Your task to perform on an android device: toggle data saver in the chrome app Image 0: 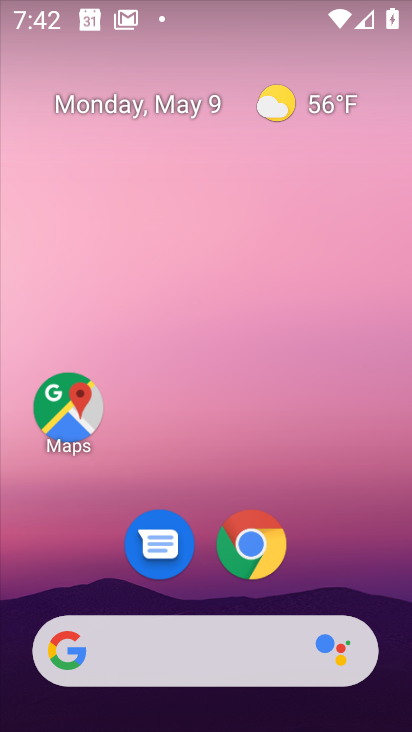
Step 0: click (251, 546)
Your task to perform on an android device: toggle data saver in the chrome app Image 1: 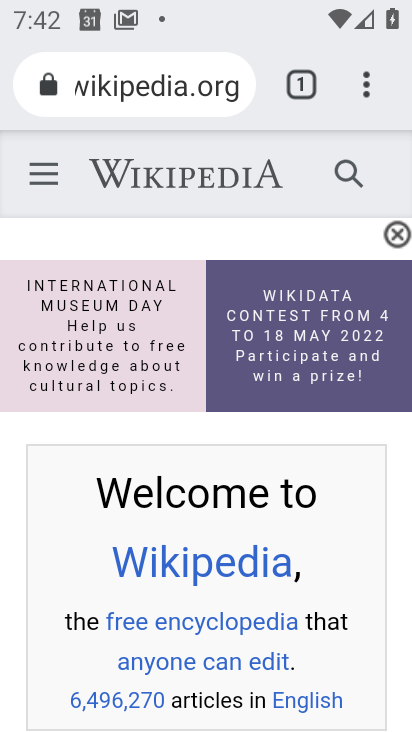
Step 1: click (367, 85)
Your task to perform on an android device: toggle data saver in the chrome app Image 2: 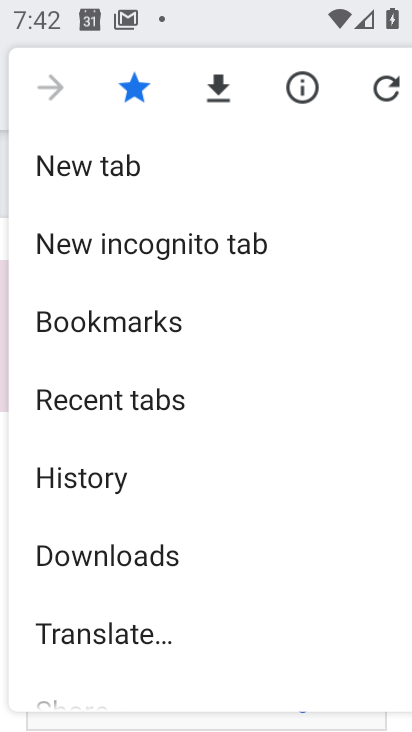
Step 2: drag from (189, 508) to (252, 375)
Your task to perform on an android device: toggle data saver in the chrome app Image 3: 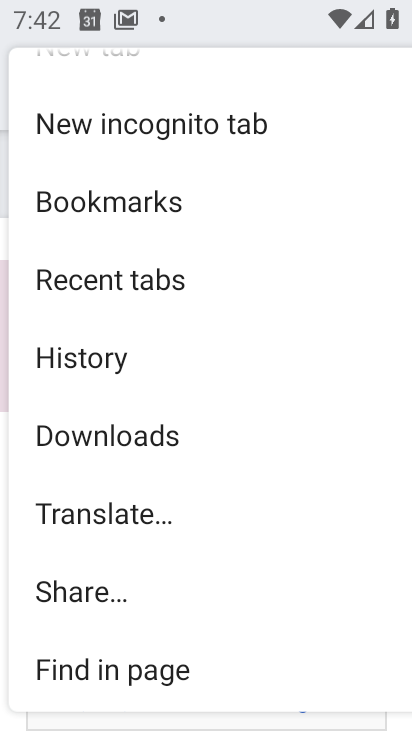
Step 3: drag from (174, 564) to (218, 457)
Your task to perform on an android device: toggle data saver in the chrome app Image 4: 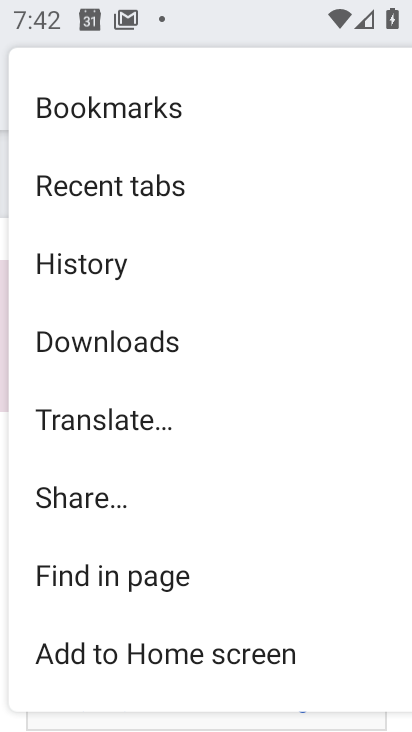
Step 4: drag from (184, 612) to (268, 413)
Your task to perform on an android device: toggle data saver in the chrome app Image 5: 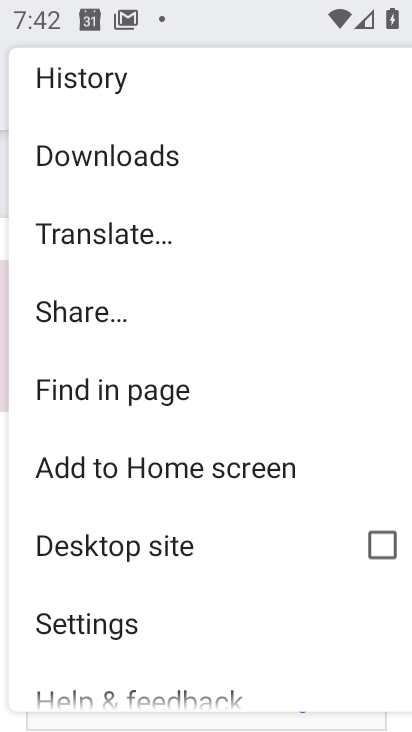
Step 5: click (122, 616)
Your task to perform on an android device: toggle data saver in the chrome app Image 6: 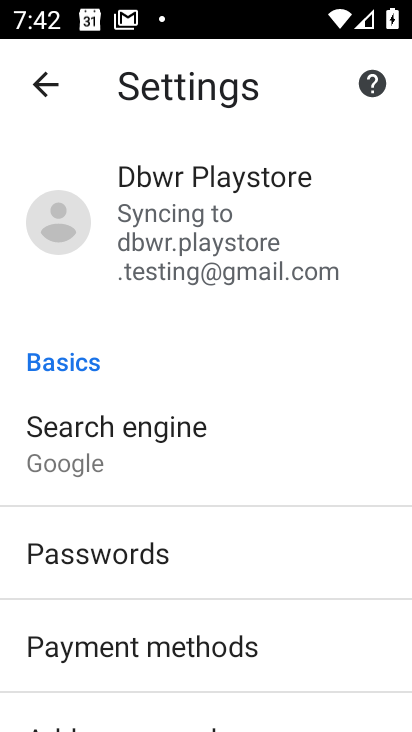
Step 6: drag from (202, 556) to (271, 394)
Your task to perform on an android device: toggle data saver in the chrome app Image 7: 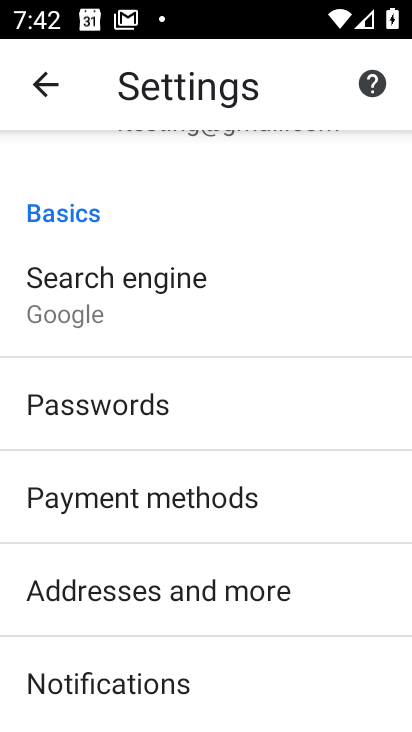
Step 7: drag from (219, 520) to (305, 416)
Your task to perform on an android device: toggle data saver in the chrome app Image 8: 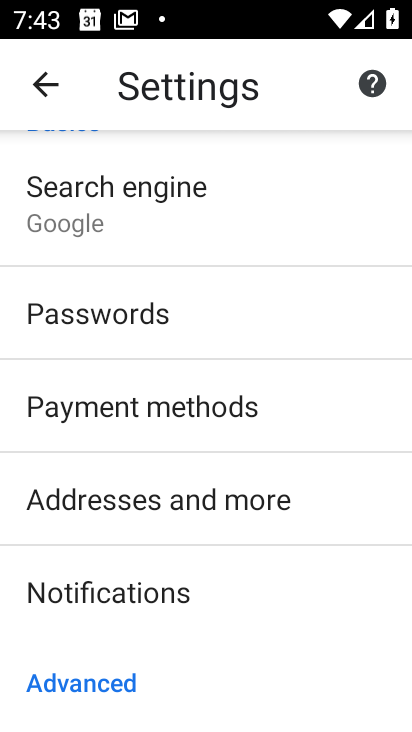
Step 8: drag from (215, 574) to (299, 435)
Your task to perform on an android device: toggle data saver in the chrome app Image 9: 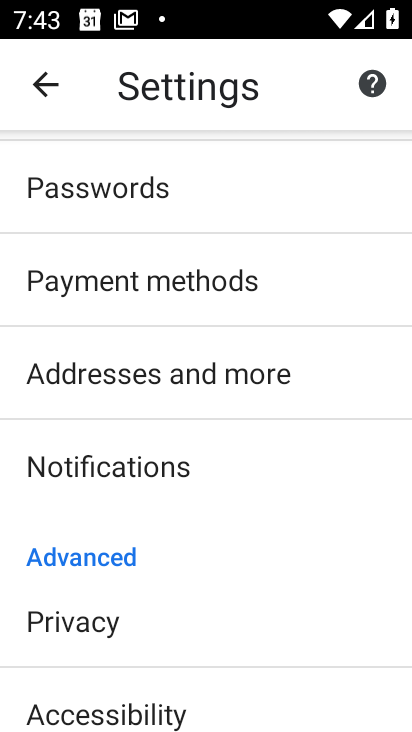
Step 9: drag from (170, 597) to (272, 449)
Your task to perform on an android device: toggle data saver in the chrome app Image 10: 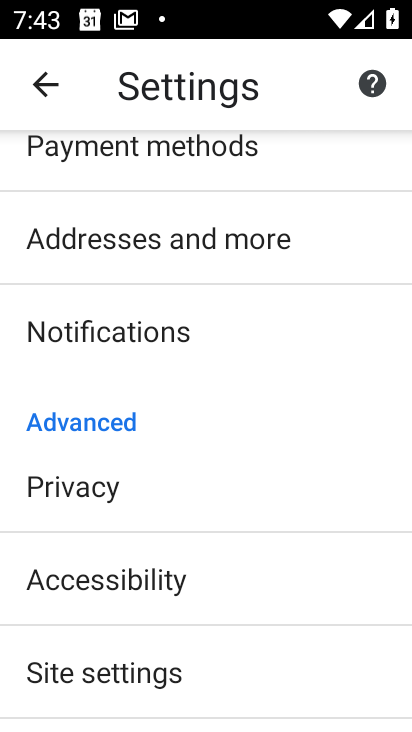
Step 10: drag from (182, 603) to (288, 450)
Your task to perform on an android device: toggle data saver in the chrome app Image 11: 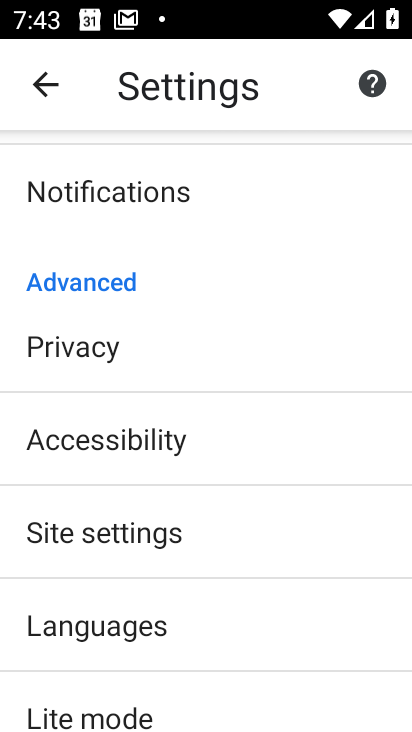
Step 11: drag from (184, 607) to (302, 446)
Your task to perform on an android device: toggle data saver in the chrome app Image 12: 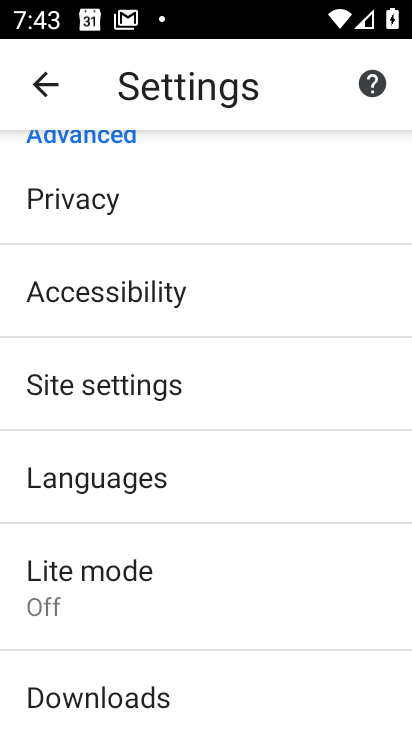
Step 12: click (121, 579)
Your task to perform on an android device: toggle data saver in the chrome app Image 13: 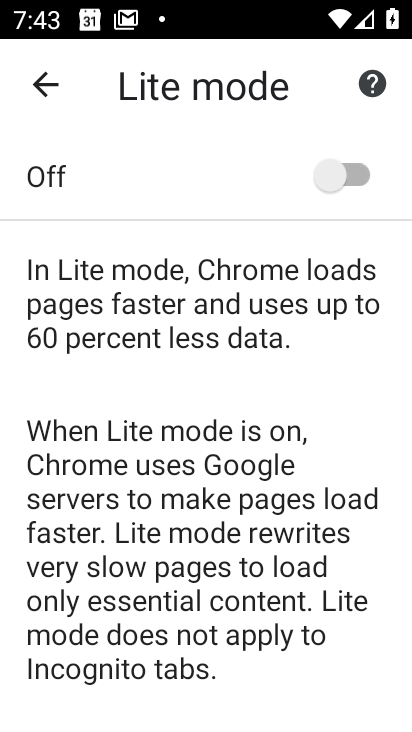
Step 13: click (342, 184)
Your task to perform on an android device: toggle data saver in the chrome app Image 14: 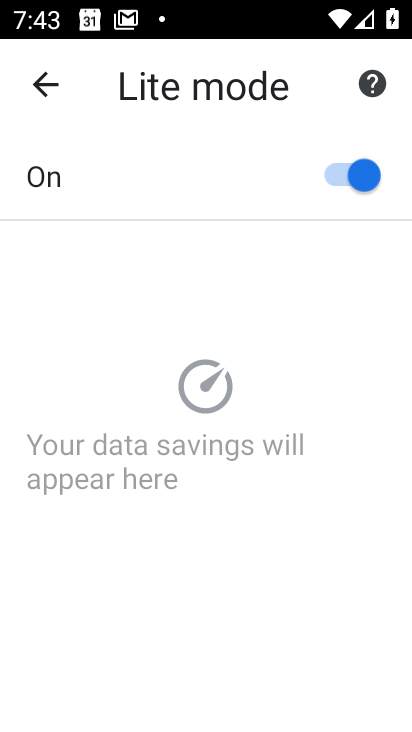
Step 14: task complete